Your task to perform on an android device: turn off improve location accuracy Image 0: 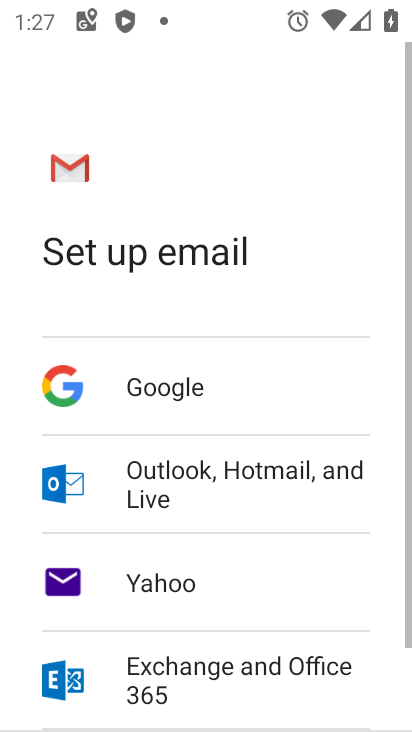
Step 0: press home button
Your task to perform on an android device: turn off improve location accuracy Image 1: 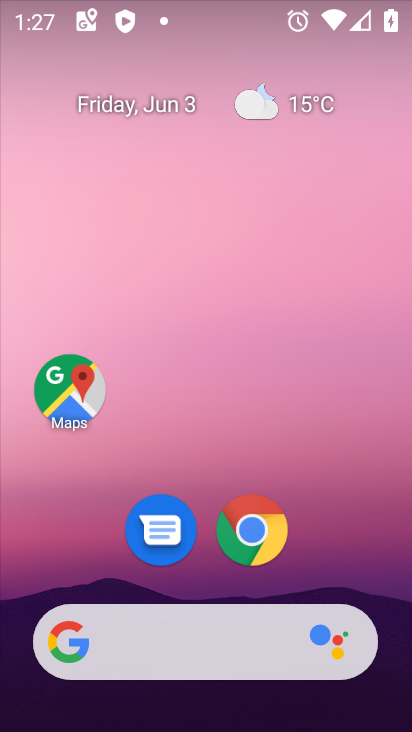
Step 1: drag from (363, 542) to (389, 121)
Your task to perform on an android device: turn off improve location accuracy Image 2: 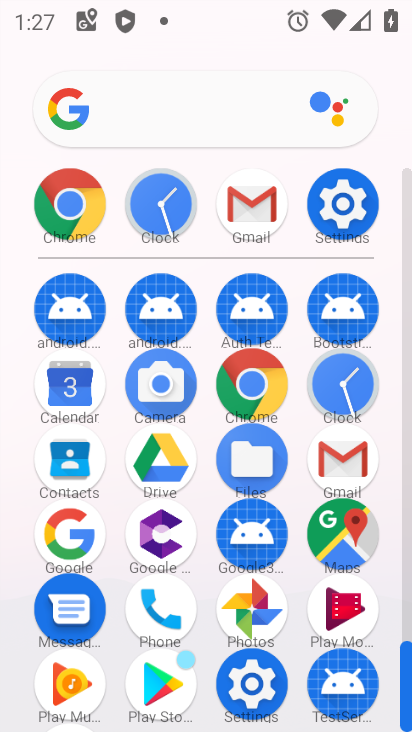
Step 2: click (329, 187)
Your task to perform on an android device: turn off improve location accuracy Image 3: 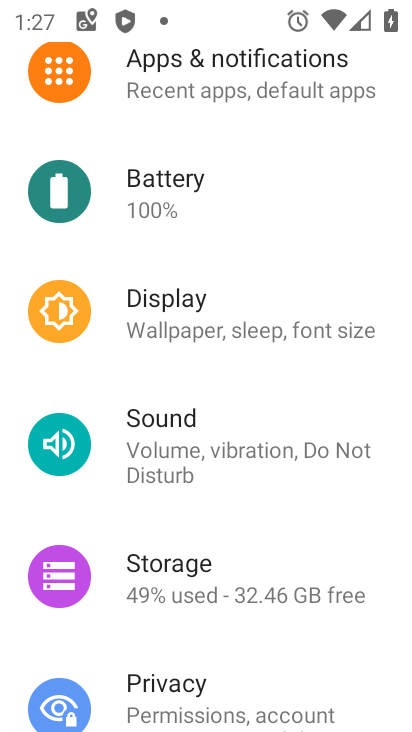
Step 3: drag from (374, 634) to (366, 231)
Your task to perform on an android device: turn off improve location accuracy Image 4: 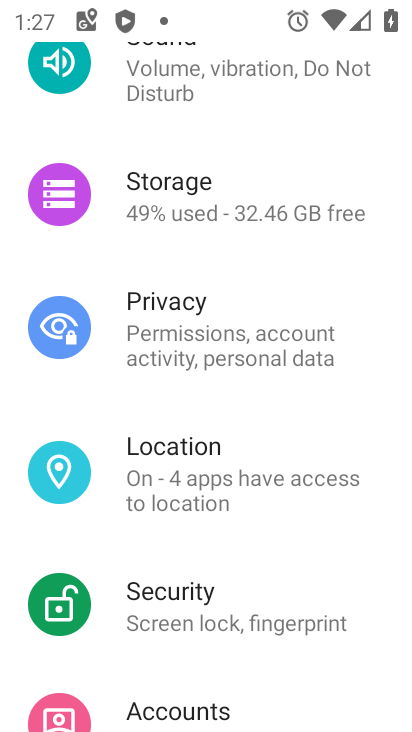
Step 4: click (252, 472)
Your task to perform on an android device: turn off improve location accuracy Image 5: 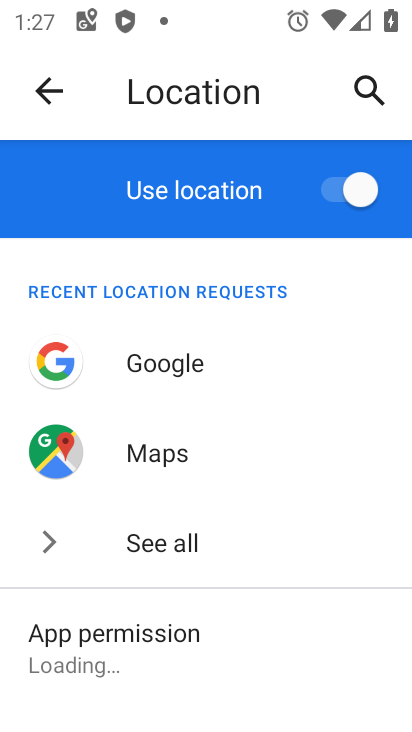
Step 5: drag from (289, 658) to (314, 203)
Your task to perform on an android device: turn off improve location accuracy Image 6: 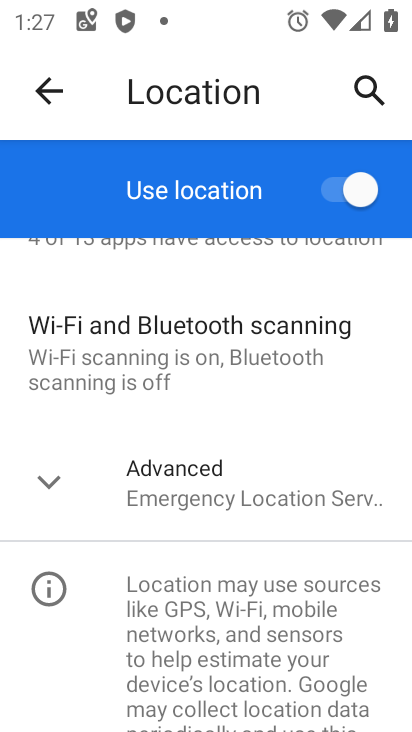
Step 6: click (53, 490)
Your task to perform on an android device: turn off improve location accuracy Image 7: 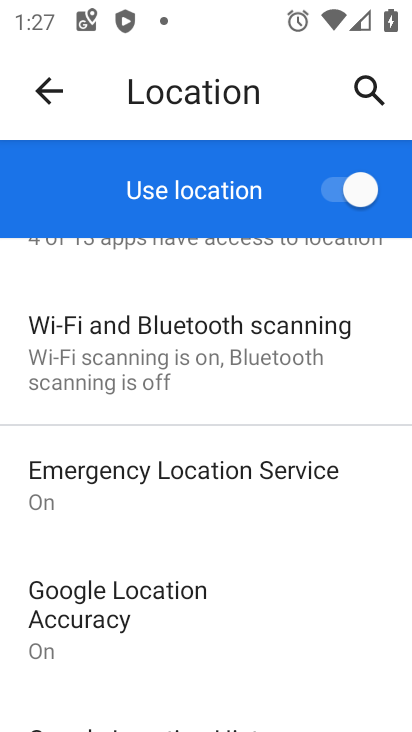
Step 7: drag from (330, 613) to (314, 352)
Your task to perform on an android device: turn off improve location accuracy Image 8: 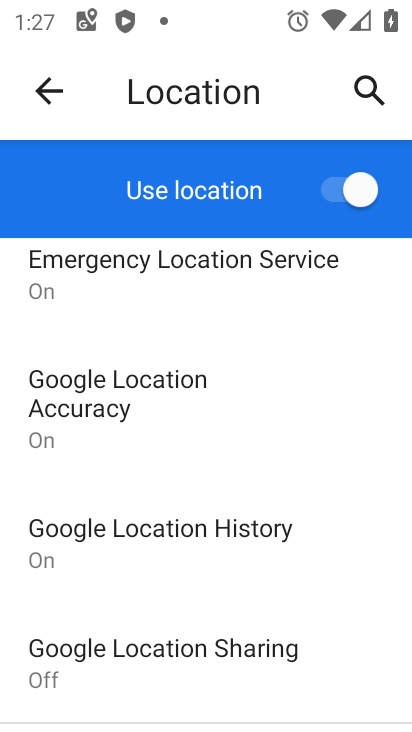
Step 8: click (154, 425)
Your task to perform on an android device: turn off improve location accuracy Image 9: 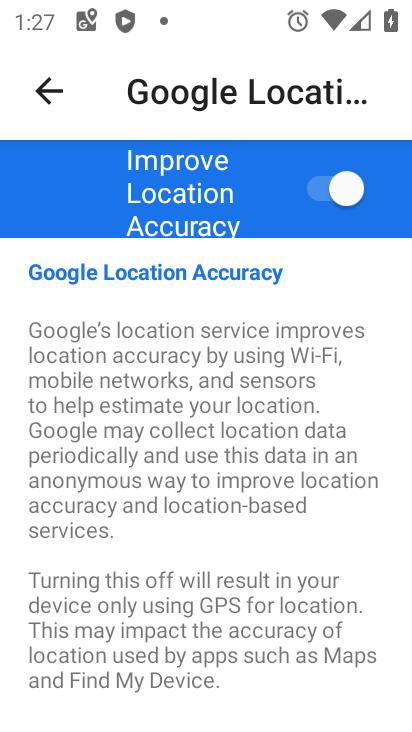
Step 9: click (342, 188)
Your task to perform on an android device: turn off improve location accuracy Image 10: 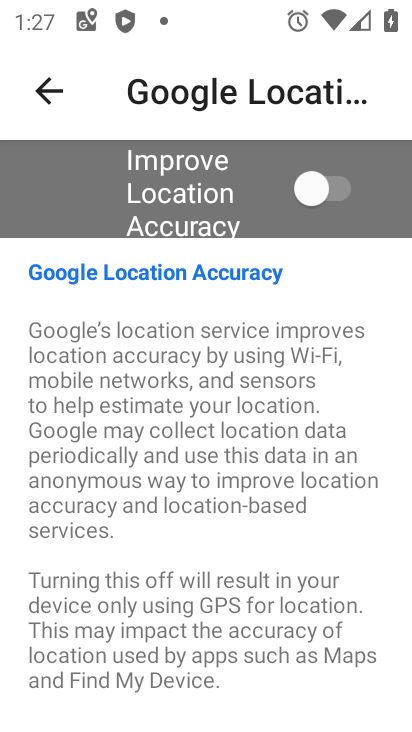
Step 10: task complete